Your task to perform on an android device: Clear the shopping cart on ebay.com. Add usb-c to usb-a to the cart on ebay.com, then select checkout. Image 0: 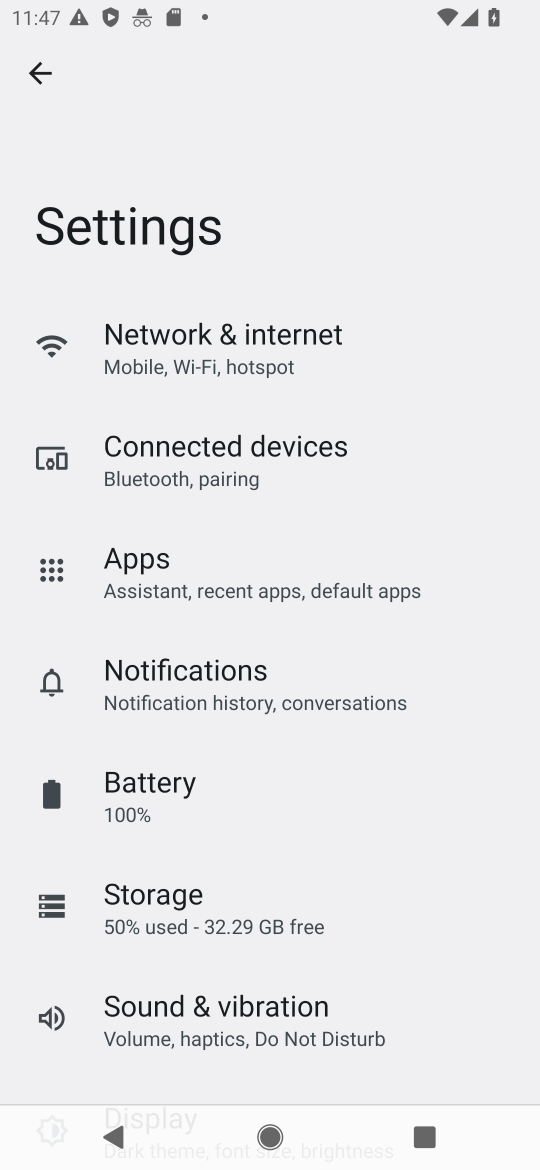
Step 0: press home button
Your task to perform on an android device: Clear the shopping cart on ebay.com. Add usb-c to usb-a to the cart on ebay.com, then select checkout. Image 1: 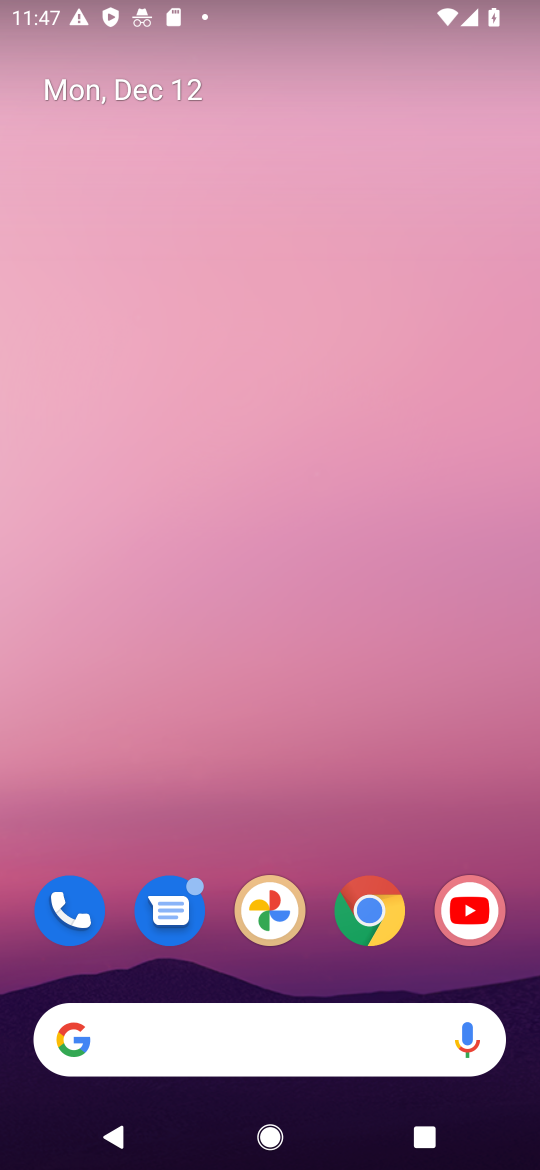
Step 1: click (360, 909)
Your task to perform on an android device: Clear the shopping cart on ebay.com. Add usb-c to usb-a to the cart on ebay.com, then select checkout. Image 2: 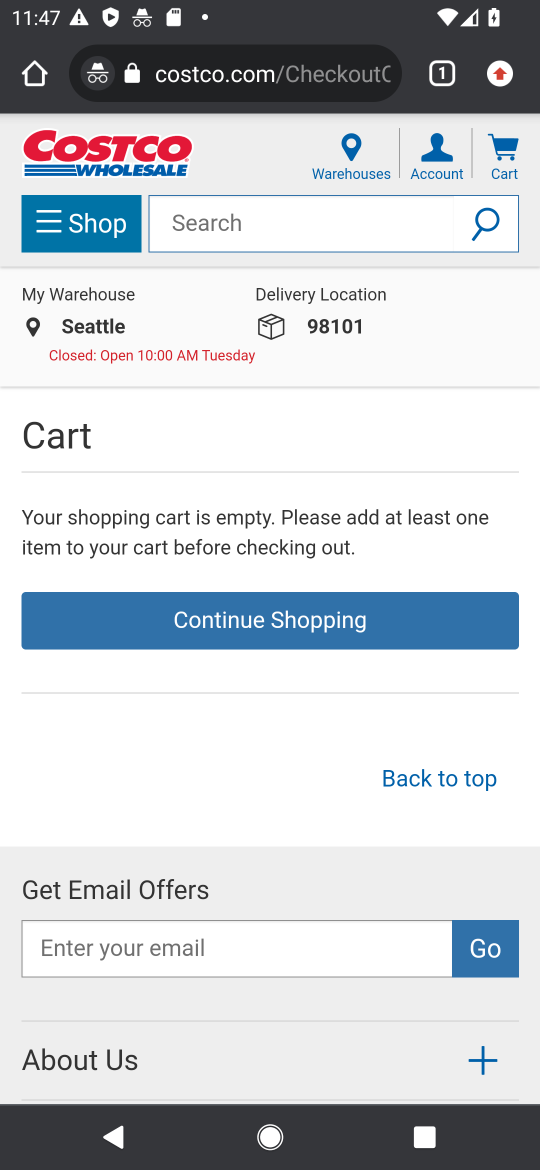
Step 2: click (282, 78)
Your task to perform on an android device: Clear the shopping cart on ebay.com. Add usb-c to usb-a to the cart on ebay.com, then select checkout. Image 3: 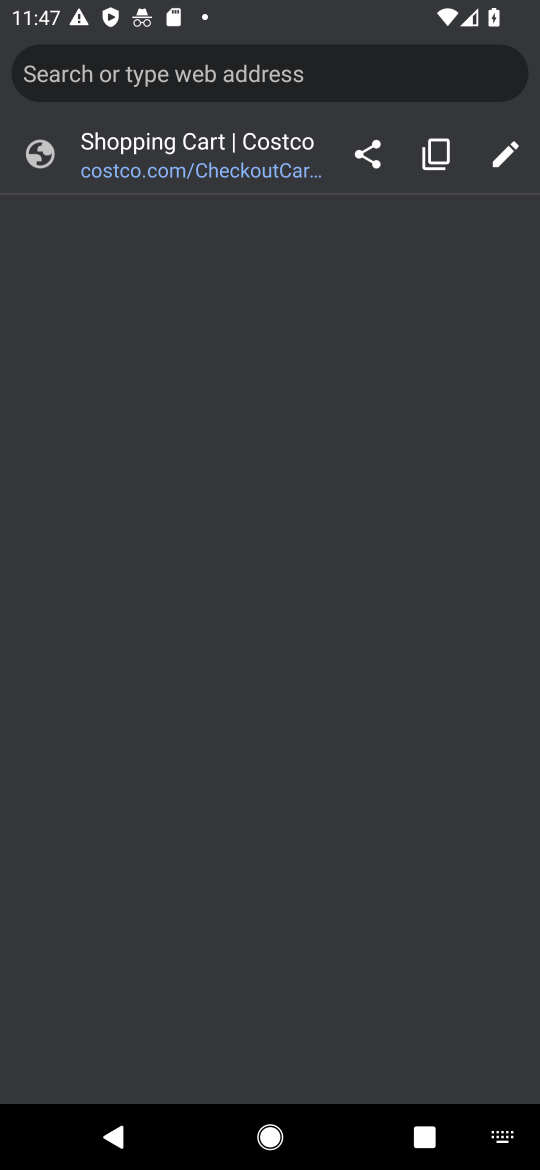
Step 3: type "EBAY"
Your task to perform on an android device: Clear the shopping cart on ebay.com. Add usb-c to usb-a to the cart on ebay.com, then select checkout. Image 4: 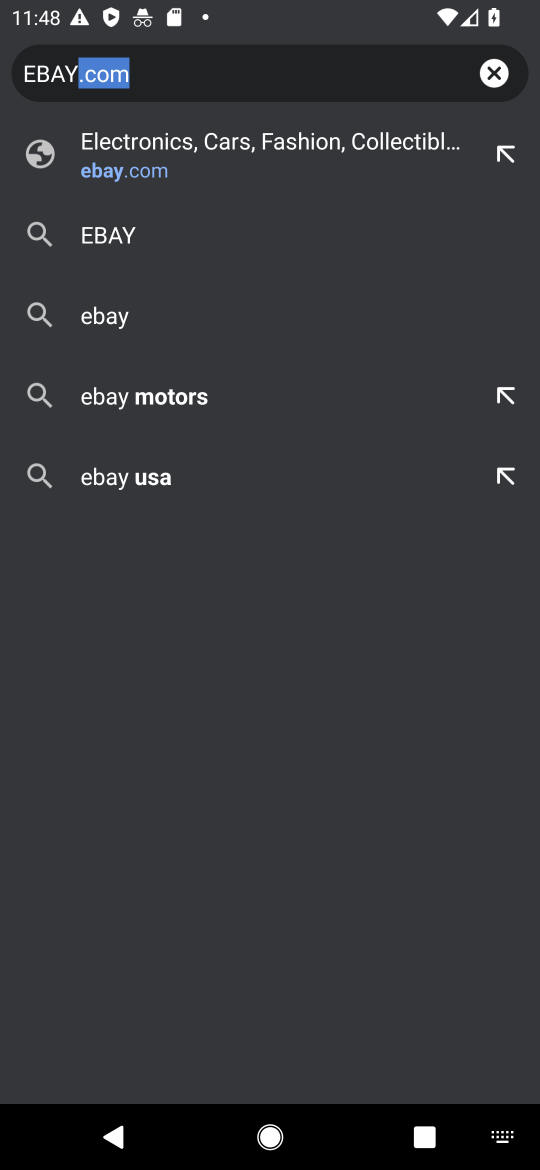
Step 4: click (284, 162)
Your task to perform on an android device: Clear the shopping cart on ebay.com. Add usb-c to usb-a to the cart on ebay.com, then select checkout. Image 5: 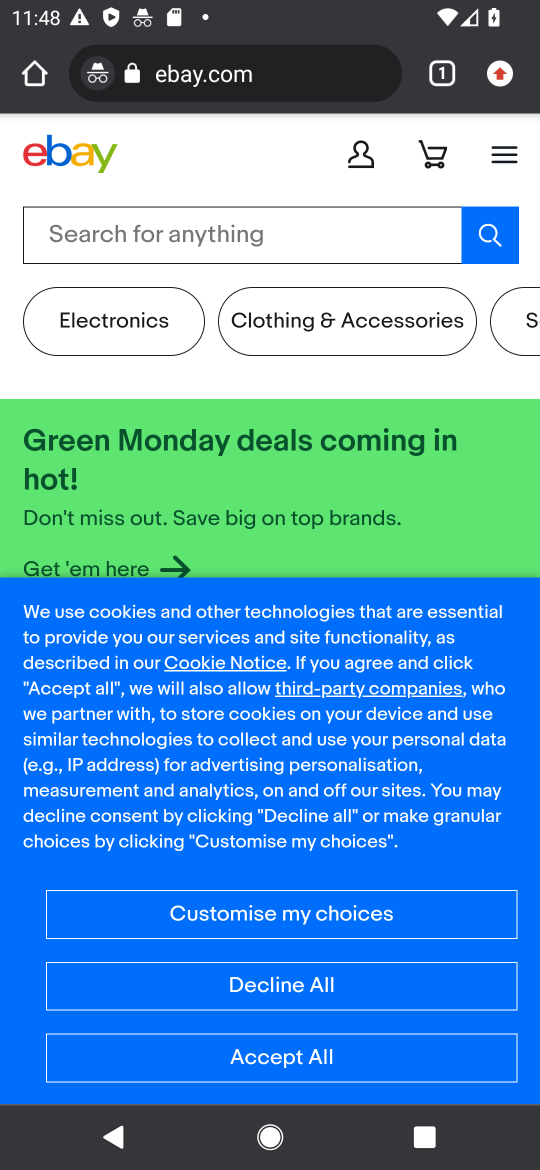
Step 5: click (258, 1055)
Your task to perform on an android device: Clear the shopping cart on ebay.com. Add usb-c to usb-a to the cart on ebay.com, then select checkout. Image 6: 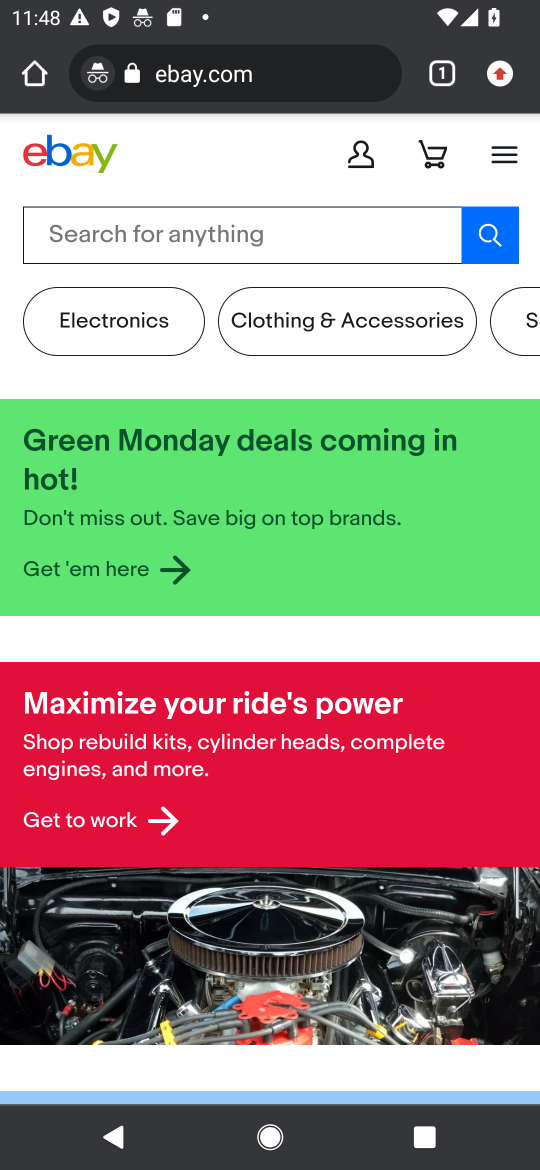
Step 6: click (432, 147)
Your task to perform on an android device: Clear the shopping cart on ebay.com. Add usb-c to usb-a to the cart on ebay.com, then select checkout. Image 7: 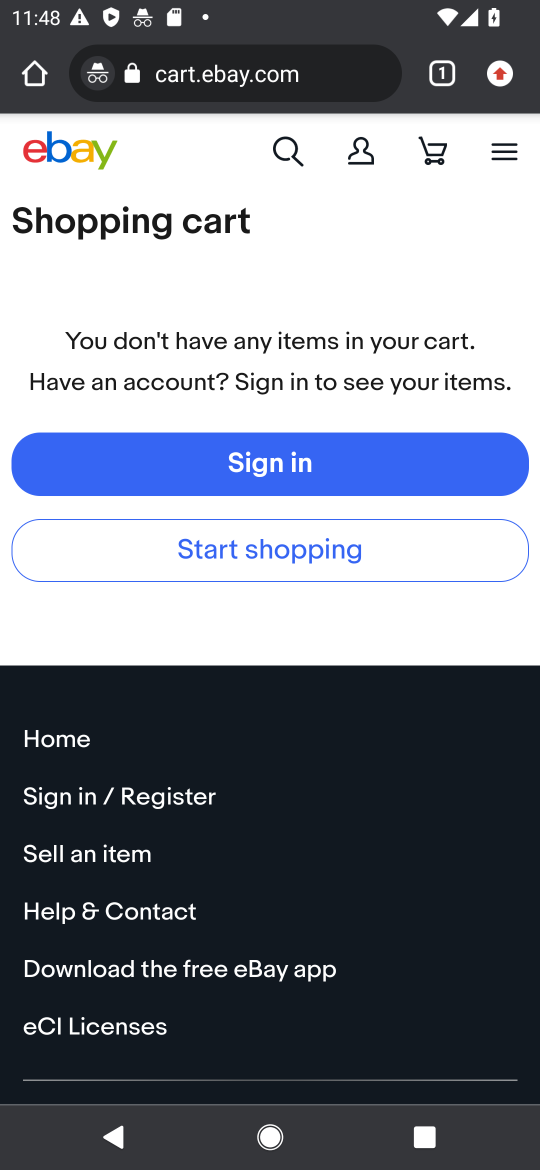
Step 7: click (388, 223)
Your task to perform on an android device: Clear the shopping cart on ebay.com. Add usb-c to usb-a to the cart on ebay.com, then select checkout. Image 8: 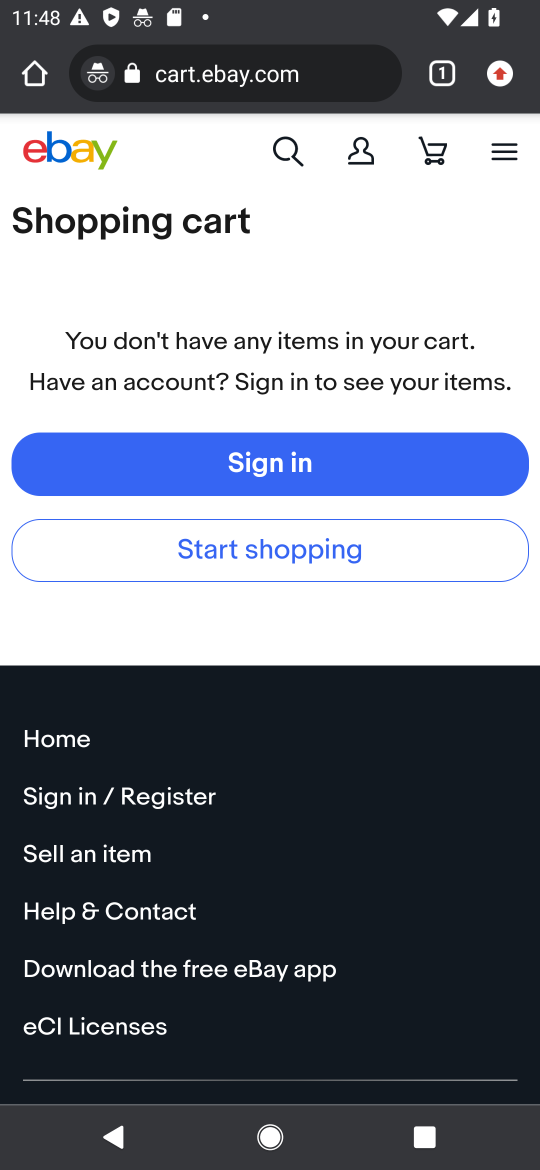
Step 8: click (28, 64)
Your task to perform on an android device: Clear the shopping cart on ebay.com. Add usb-c to usb-a to the cart on ebay.com, then select checkout. Image 9: 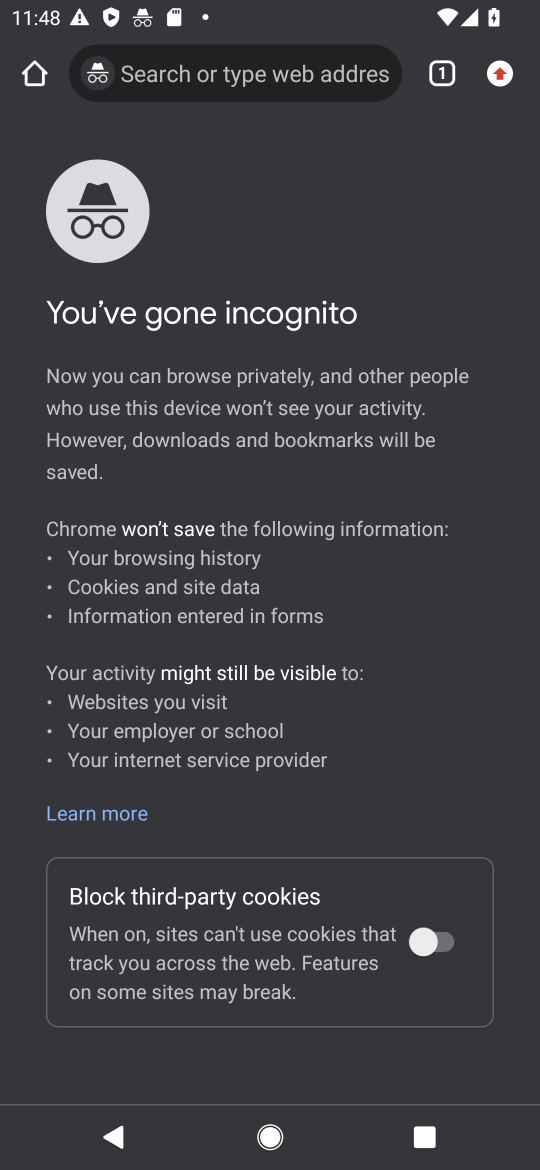
Step 9: click (251, 77)
Your task to perform on an android device: Clear the shopping cart on ebay.com. Add usb-c to usb-a to the cart on ebay.com, then select checkout. Image 10: 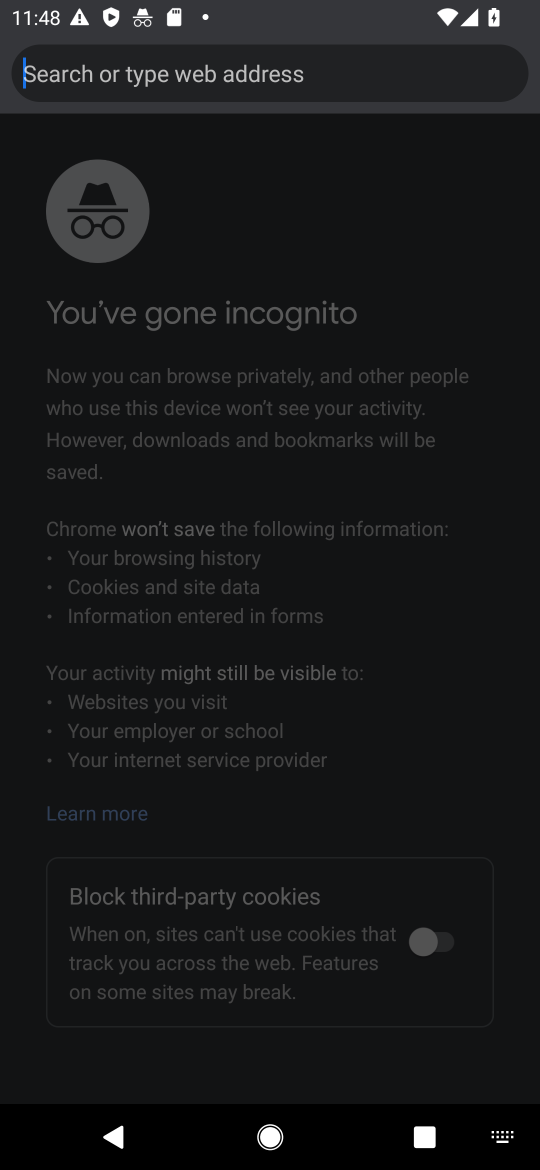
Step 10: type "EBAY"
Your task to perform on an android device: Clear the shopping cart on ebay.com. Add usb-c to usb-a to the cart on ebay.com, then select checkout. Image 11: 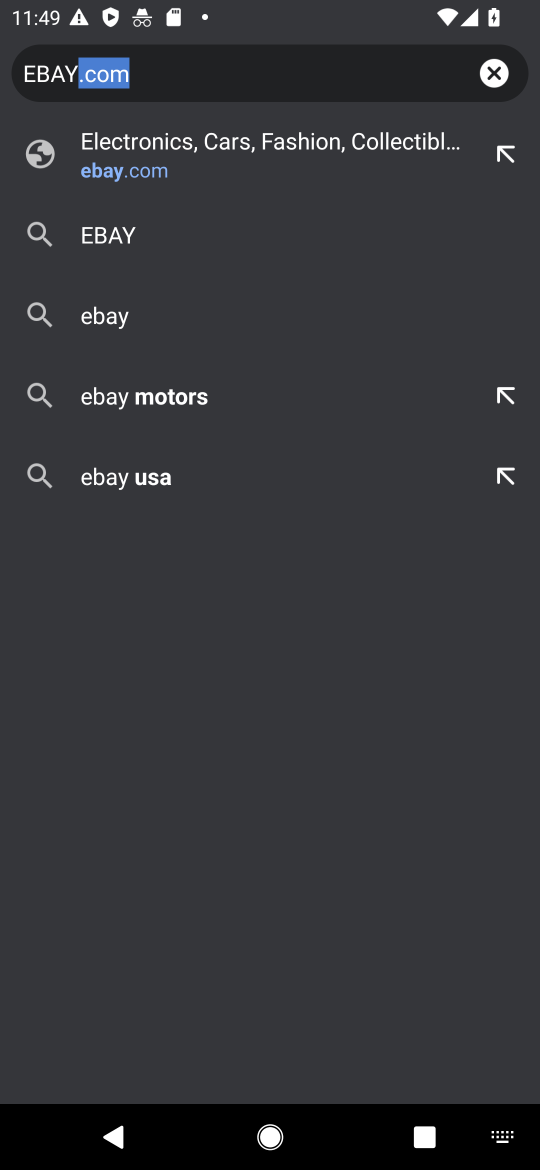
Step 11: click (187, 170)
Your task to perform on an android device: Clear the shopping cart on ebay.com. Add usb-c to usb-a to the cart on ebay.com, then select checkout. Image 12: 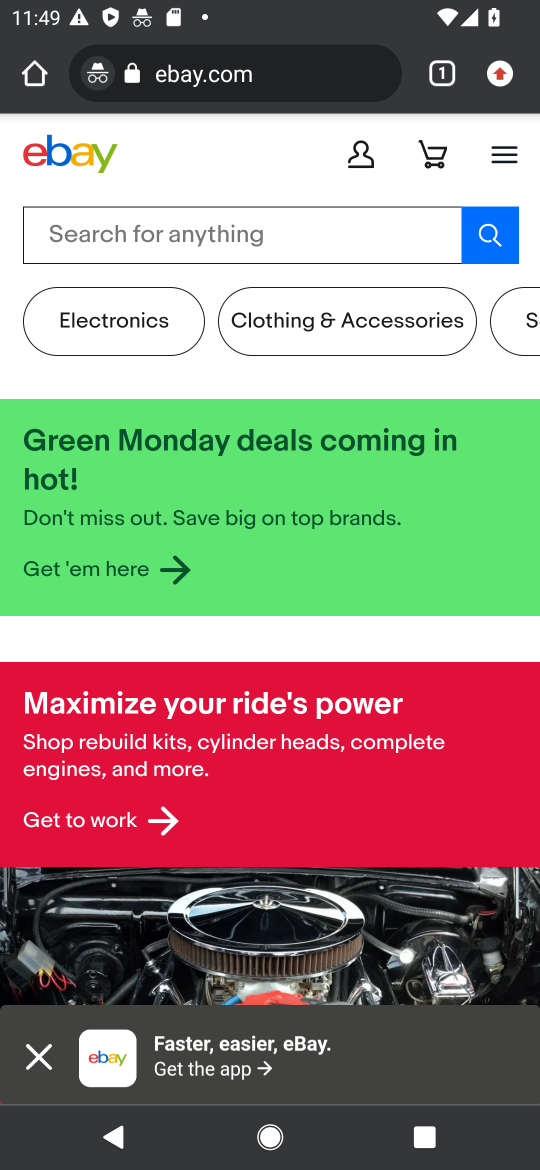
Step 12: click (257, 233)
Your task to perform on an android device: Clear the shopping cart on ebay.com. Add usb-c to usb-a to the cart on ebay.com, then select checkout. Image 13: 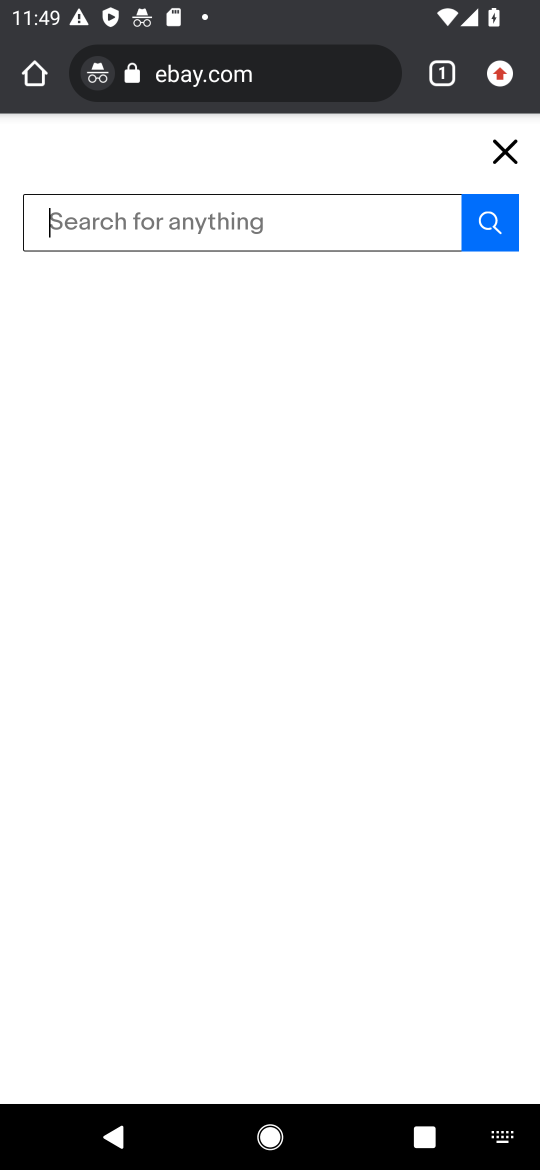
Step 13: type "usb-c to usb-a"
Your task to perform on an android device: Clear the shopping cart on ebay.com. Add usb-c to usb-a to the cart on ebay.com, then select checkout. Image 14: 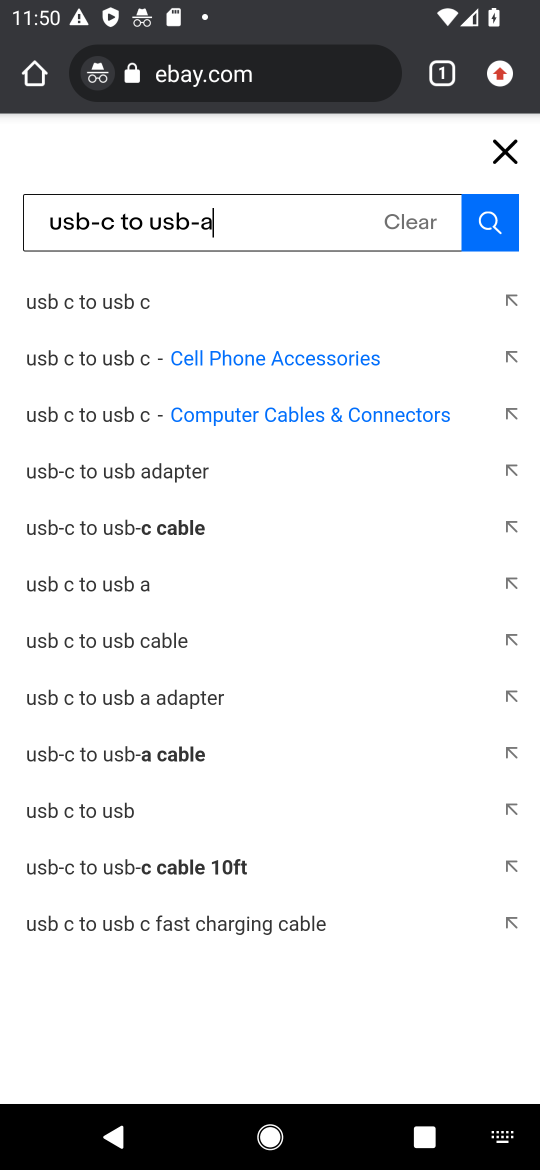
Step 14: click (128, 299)
Your task to perform on an android device: Clear the shopping cart on ebay.com. Add usb-c to usb-a to the cart on ebay.com, then select checkout. Image 15: 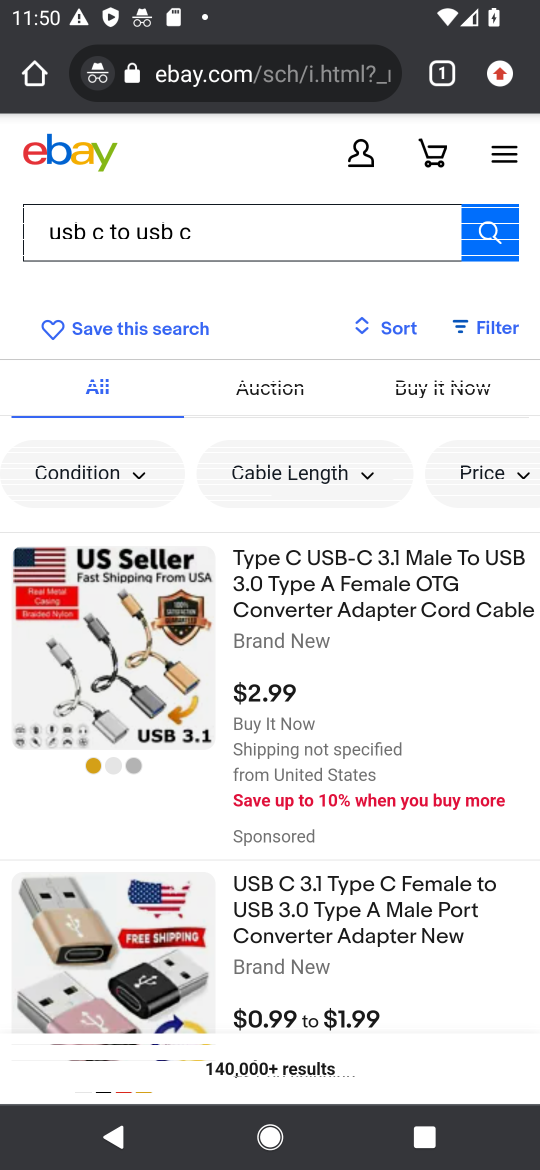
Step 15: click (441, 592)
Your task to perform on an android device: Clear the shopping cart on ebay.com. Add usb-c to usb-a to the cart on ebay.com, then select checkout. Image 16: 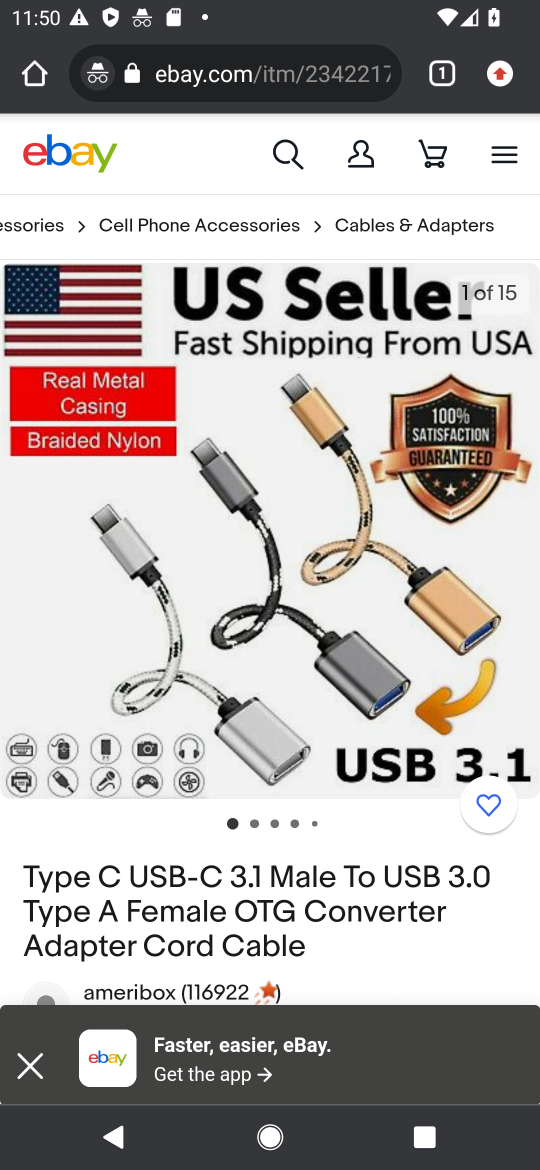
Step 16: drag from (395, 914) to (375, 235)
Your task to perform on an android device: Clear the shopping cart on ebay.com. Add usb-c to usb-a to the cart on ebay.com, then select checkout. Image 17: 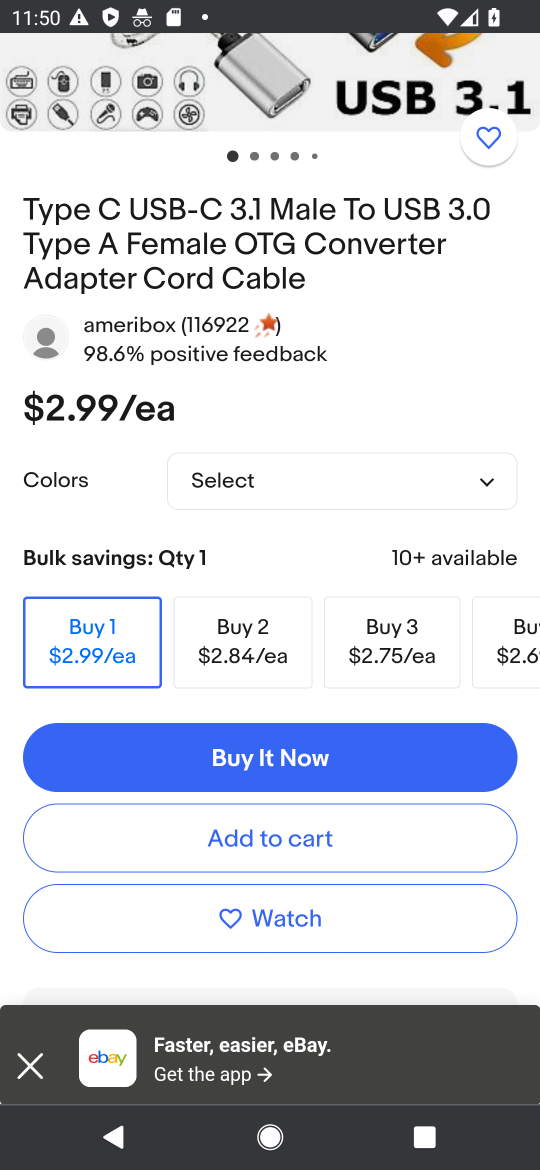
Step 17: click (303, 840)
Your task to perform on an android device: Clear the shopping cart on ebay.com. Add usb-c to usb-a to the cart on ebay.com, then select checkout. Image 18: 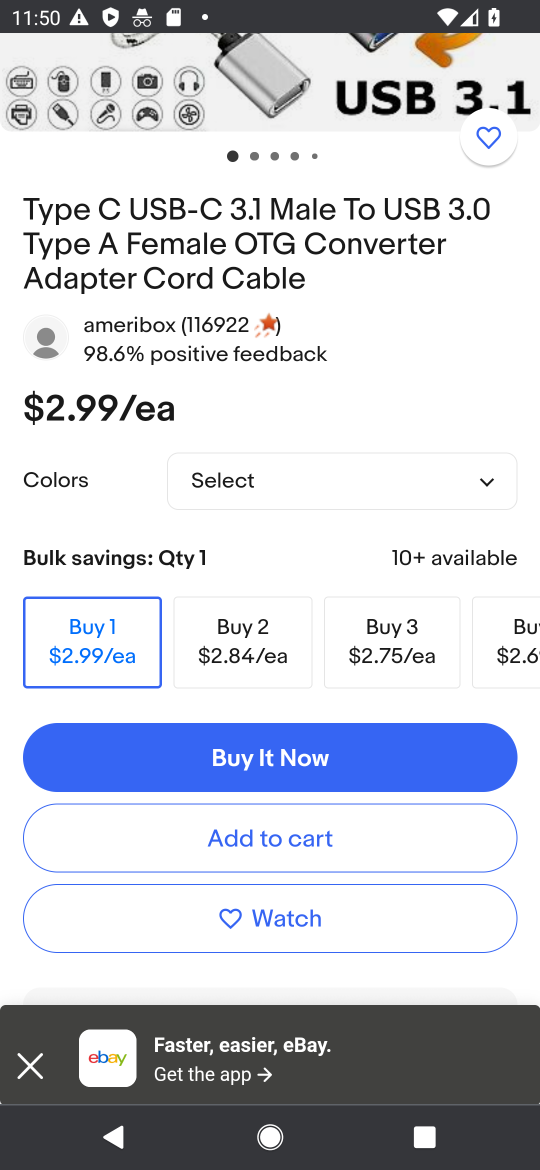
Step 18: click (303, 840)
Your task to perform on an android device: Clear the shopping cart on ebay.com. Add usb-c to usb-a to the cart on ebay.com, then select checkout. Image 19: 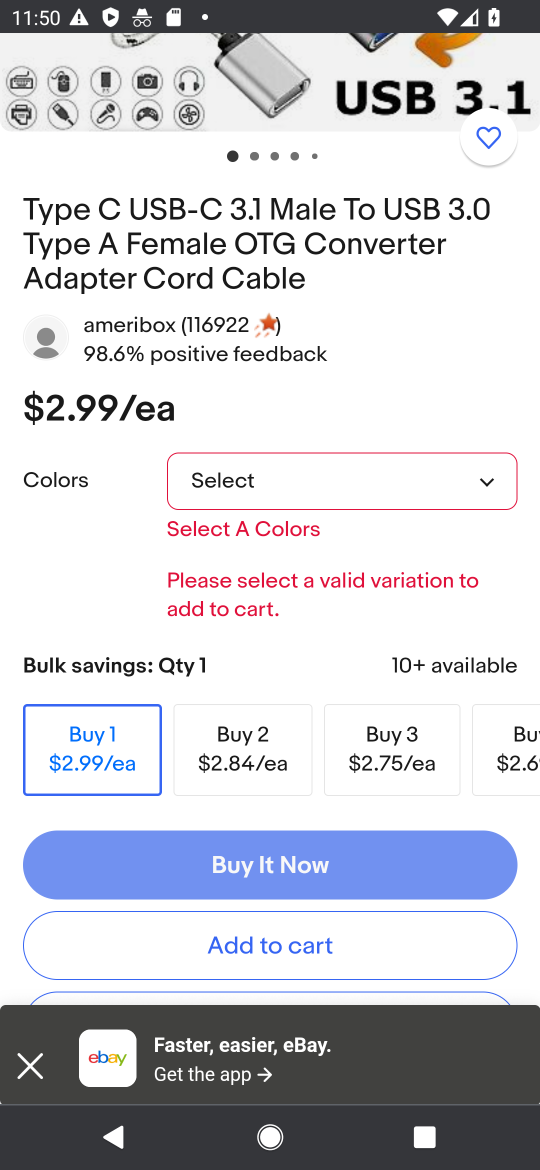
Step 19: click (356, 490)
Your task to perform on an android device: Clear the shopping cart on ebay.com. Add usb-c to usb-a to the cart on ebay.com, then select checkout. Image 20: 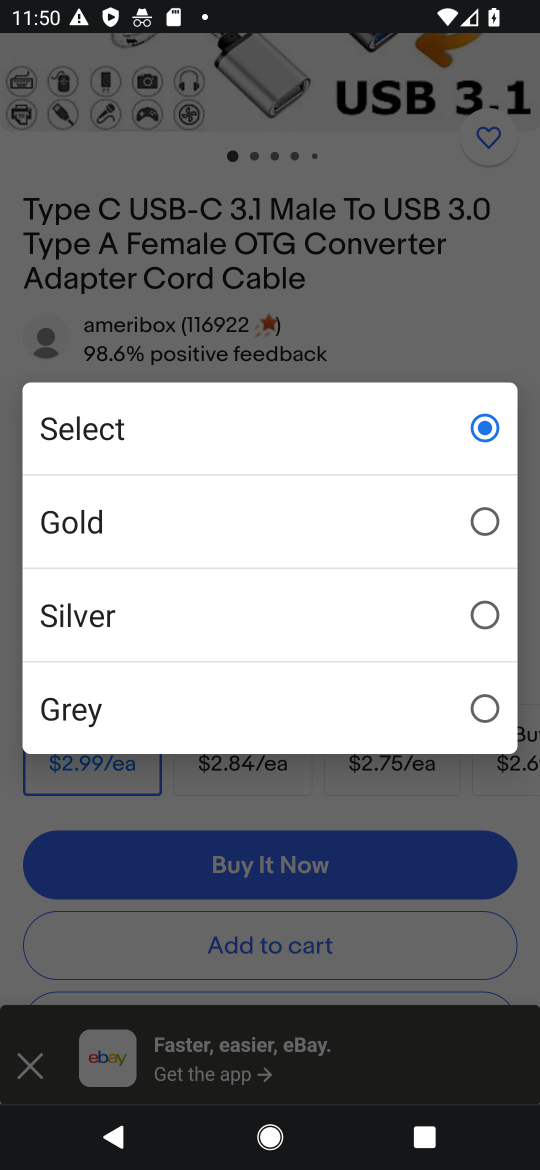
Step 20: click (235, 529)
Your task to perform on an android device: Clear the shopping cart on ebay.com. Add usb-c to usb-a to the cart on ebay.com, then select checkout. Image 21: 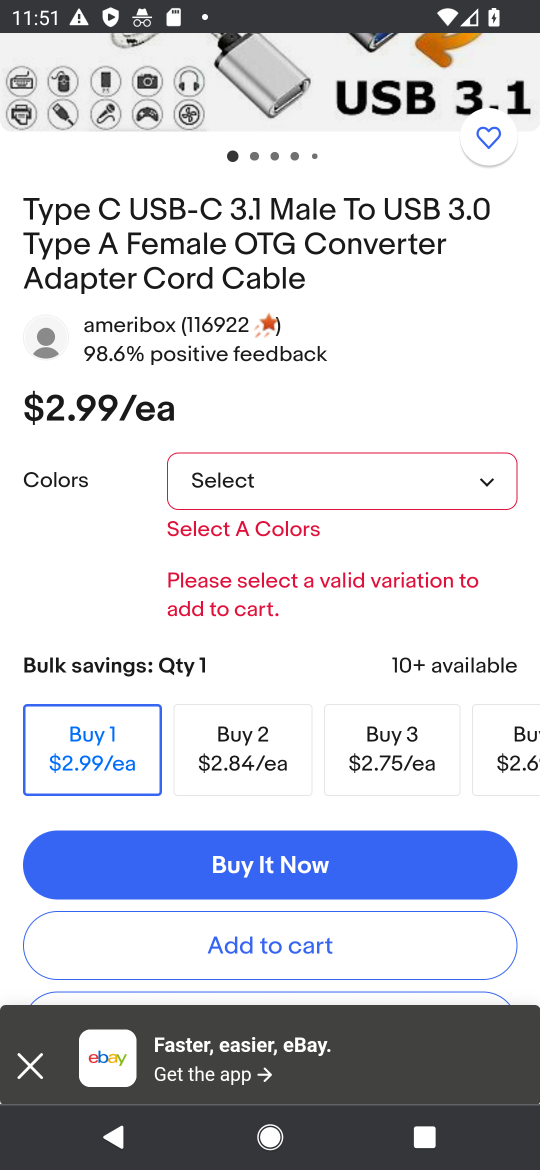
Step 21: click (326, 945)
Your task to perform on an android device: Clear the shopping cart on ebay.com. Add usb-c to usb-a to the cart on ebay.com, then select checkout. Image 22: 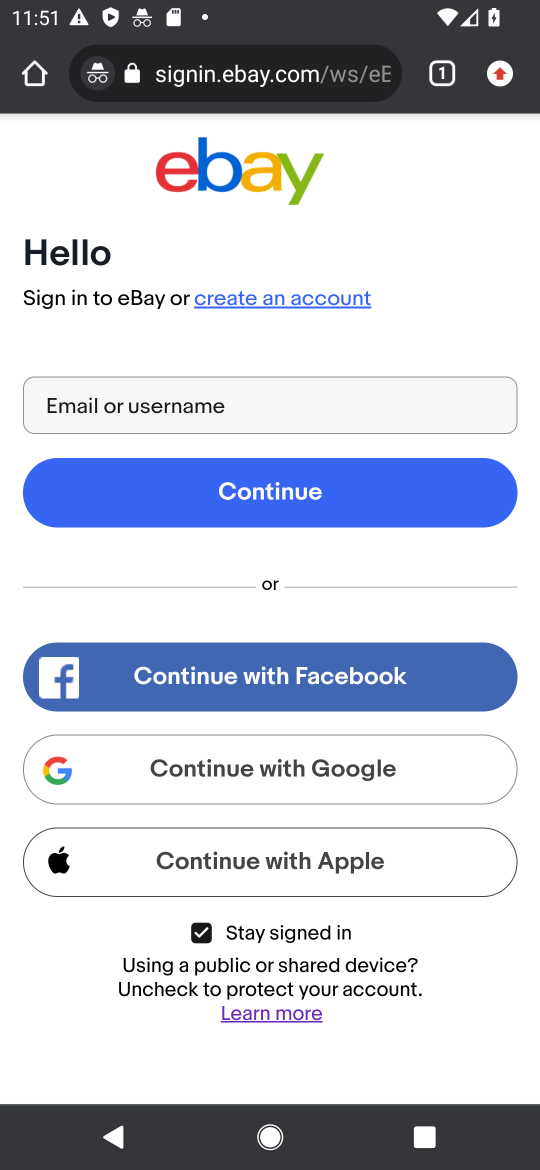
Step 22: task complete